Your task to perform on an android device: star an email in the gmail app Image 0: 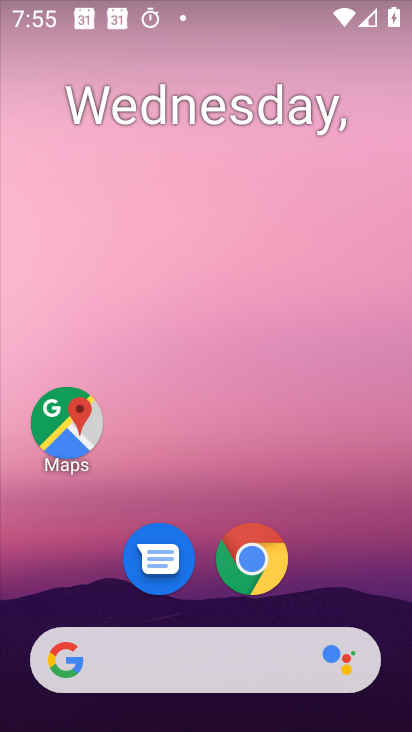
Step 0: drag from (350, 608) to (355, 39)
Your task to perform on an android device: star an email in the gmail app Image 1: 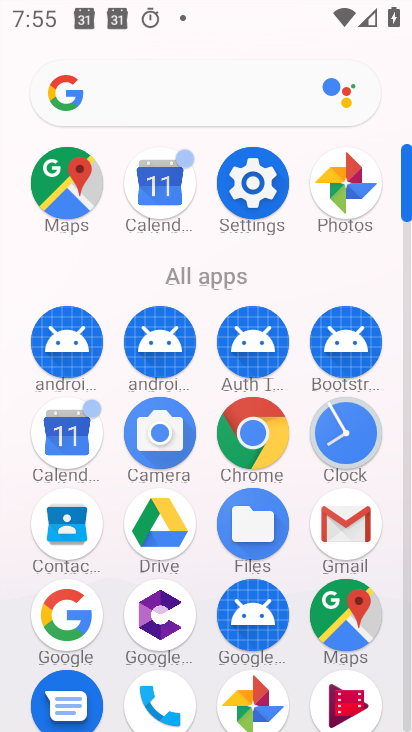
Step 1: click (338, 538)
Your task to perform on an android device: star an email in the gmail app Image 2: 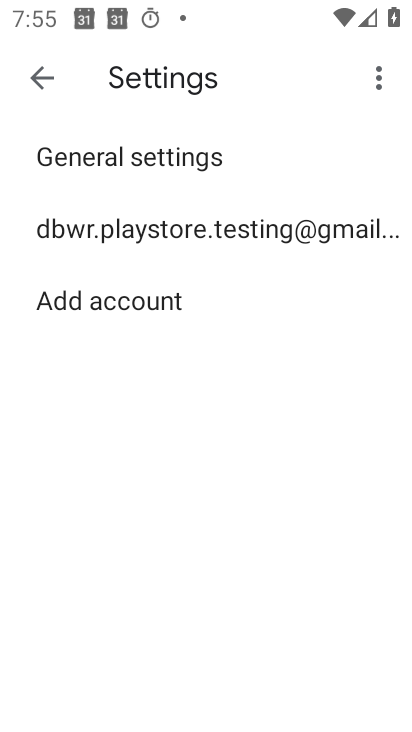
Step 2: click (52, 82)
Your task to perform on an android device: star an email in the gmail app Image 3: 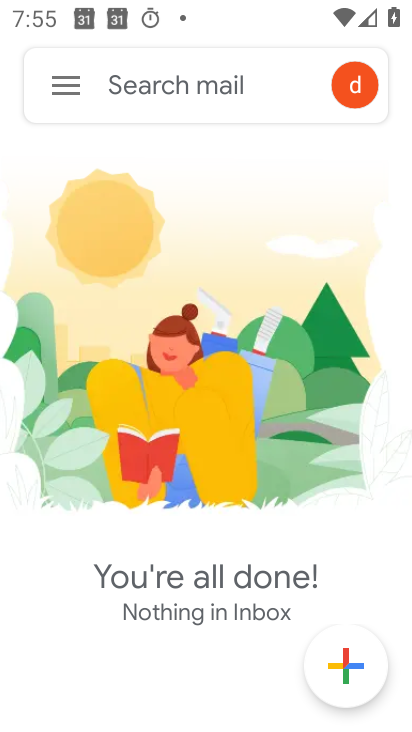
Step 3: click (62, 92)
Your task to perform on an android device: star an email in the gmail app Image 4: 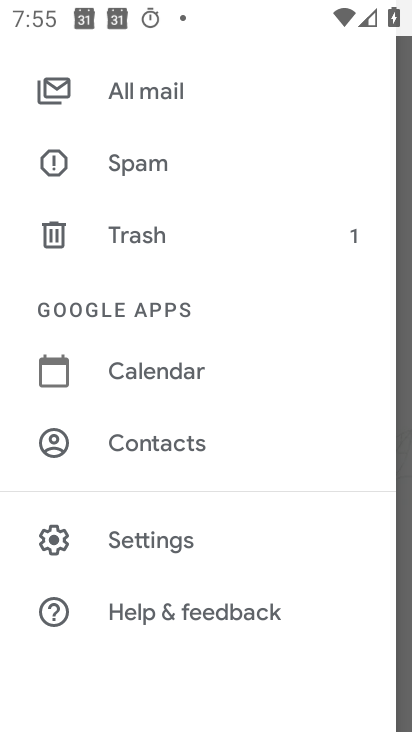
Step 4: click (116, 114)
Your task to perform on an android device: star an email in the gmail app Image 5: 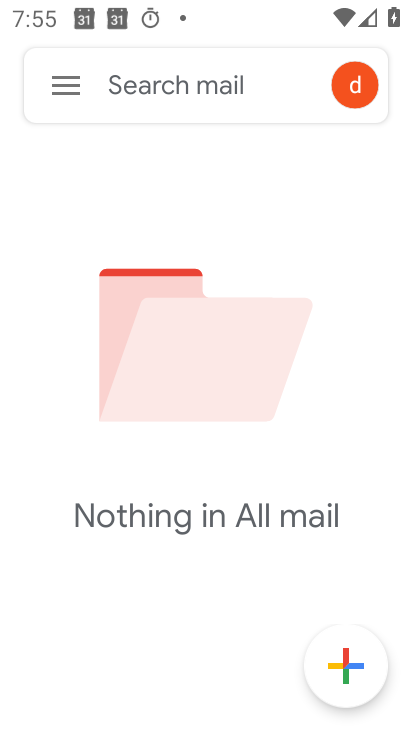
Step 5: task complete